Your task to perform on an android device: Is it going to rain today? Image 0: 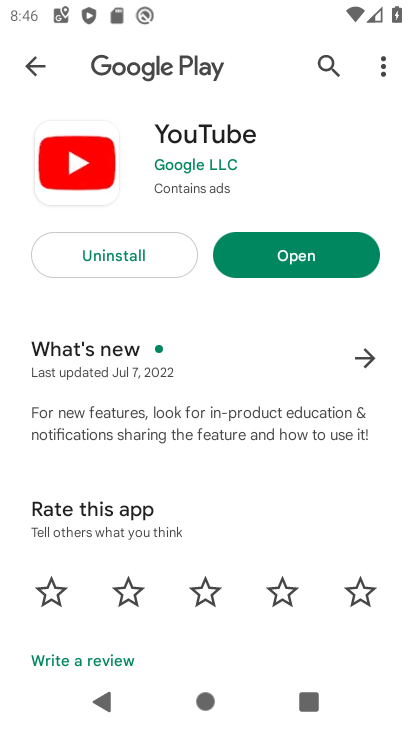
Step 0: press home button
Your task to perform on an android device: Is it going to rain today? Image 1: 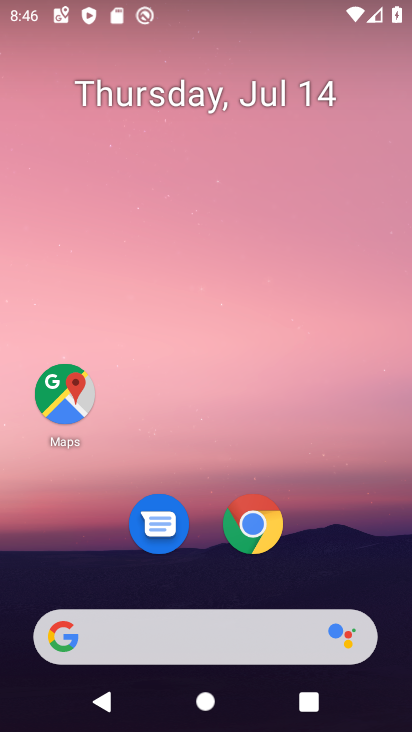
Step 1: click (235, 634)
Your task to perform on an android device: Is it going to rain today? Image 2: 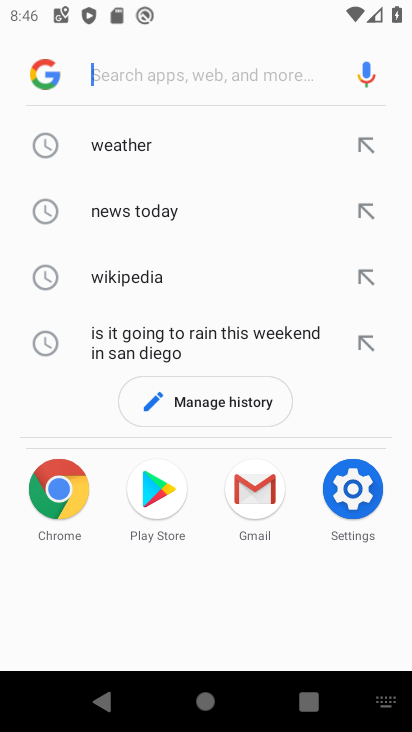
Step 2: click (127, 140)
Your task to perform on an android device: Is it going to rain today? Image 3: 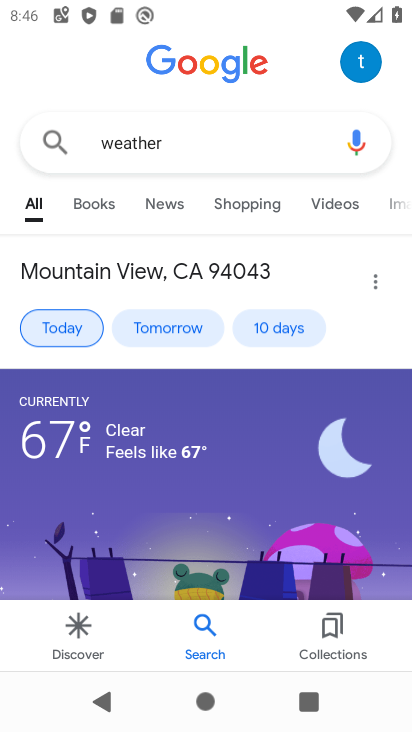
Step 3: click (56, 331)
Your task to perform on an android device: Is it going to rain today? Image 4: 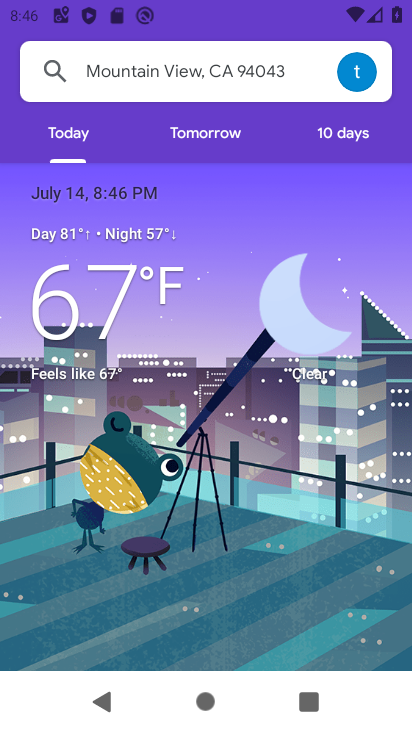
Step 4: task complete